Your task to perform on an android device: turn off picture-in-picture Image 0: 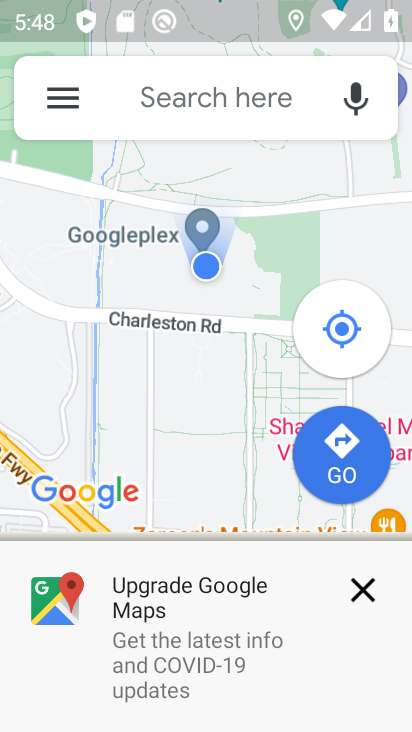
Step 0: click (179, 98)
Your task to perform on an android device: turn off picture-in-picture Image 1: 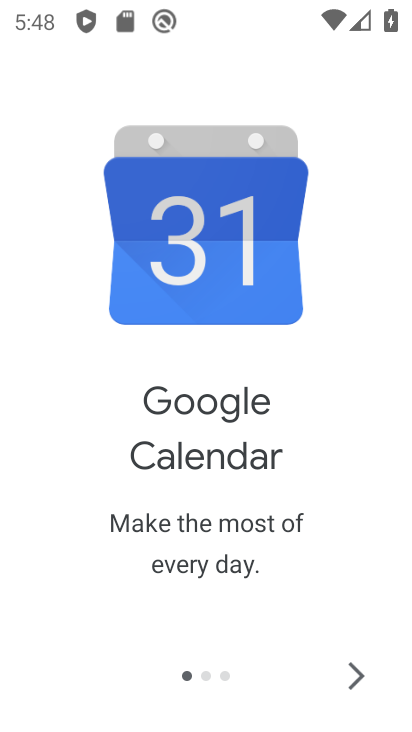
Step 1: click (214, 221)
Your task to perform on an android device: turn off picture-in-picture Image 2: 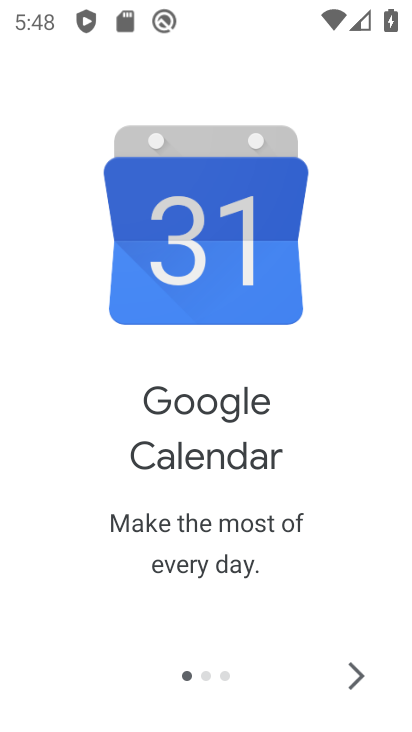
Step 2: press home button
Your task to perform on an android device: turn off picture-in-picture Image 3: 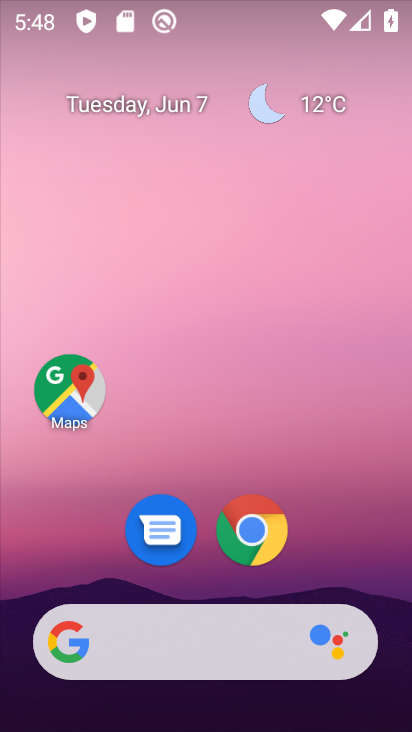
Step 3: drag from (202, 577) to (159, 156)
Your task to perform on an android device: turn off picture-in-picture Image 4: 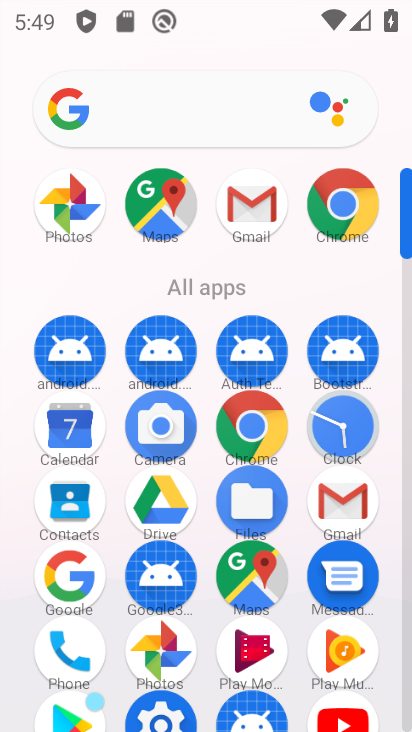
Step 4: drag from (291, 680) to (291, 393)
Your task to perform on an android device: turn off picture-in-picture Image 5: 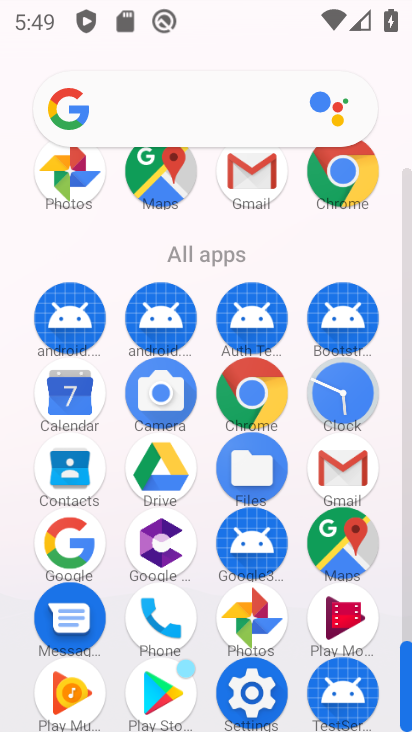
Step 5: click (255, 697)
Your task to perform on an android device: turn off picture-in-picture Image 6: 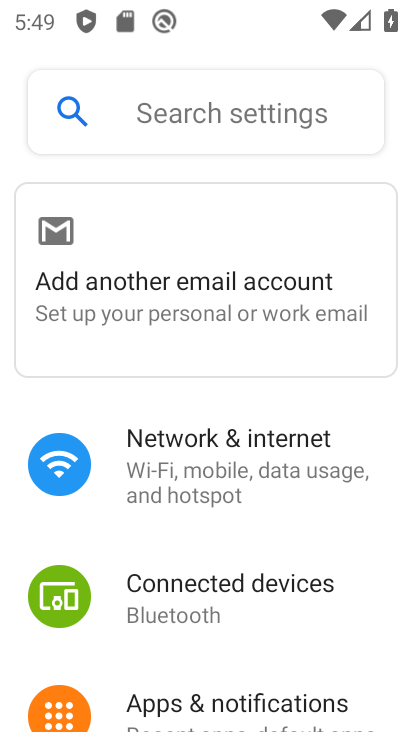
Step 6: click (185, 706)
Your task to perform on an android device: turn off picture-in-picture Image 7: 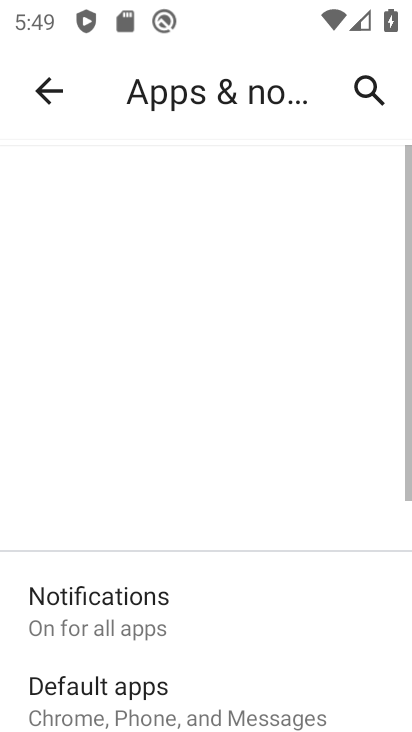
Step 7: drag from (207, 655) to (243, 177)
Your task to perform on an android device: turn off picture-in-picture Image 8: 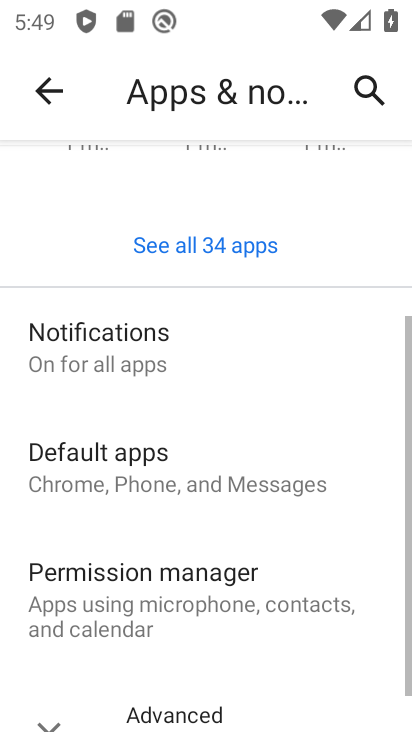
Step 8: drag from (186, 669) to (186, 361)
Your task to perform on an android device: turn off picture-in-picture Image 9: 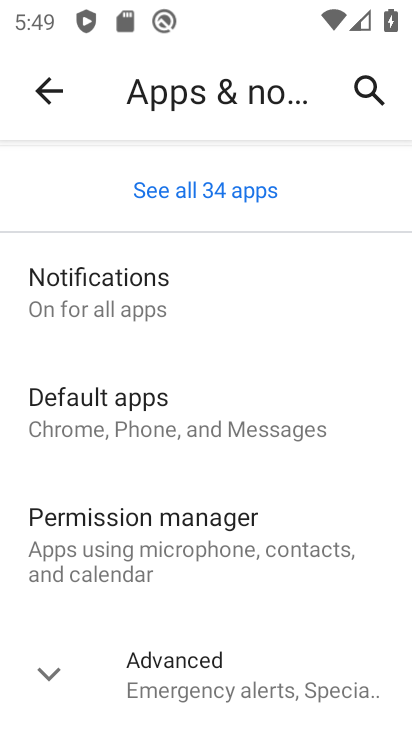
Step 9: click (165, 689)
Your task to perform on an android device: turn off picture-in-picture Image 10: 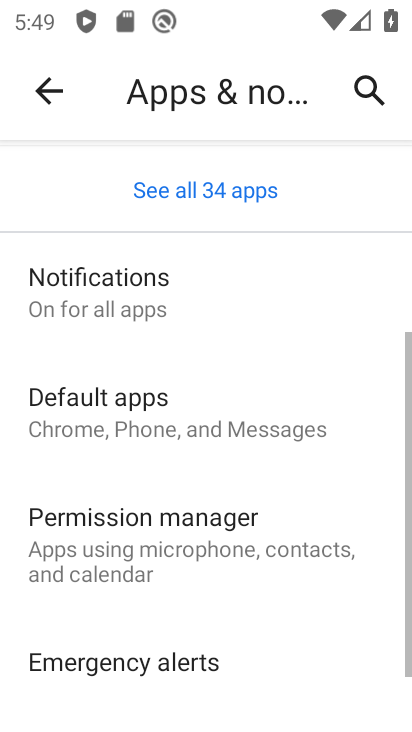
Step 10: drag from (166, 690) to (196, 342)
Your task to perform on an android device: turn off picture-in-picture Image 11: 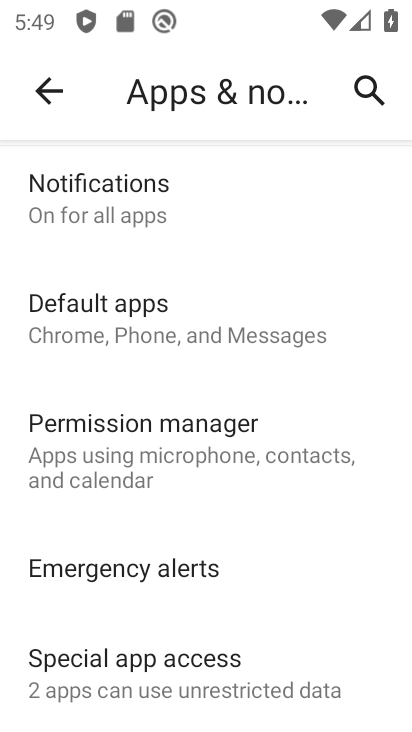
Step 11: drag from (129, 624) to (145, 410)
Your task to perform on an android device: turn off picture-in-picture Image 12: 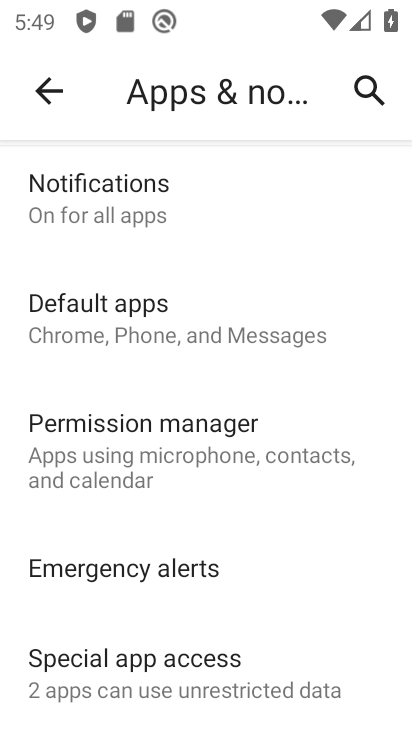
Step 12: click (105, 669)
Your task to perform on an android device: turn off picture-in-picture Image 13: 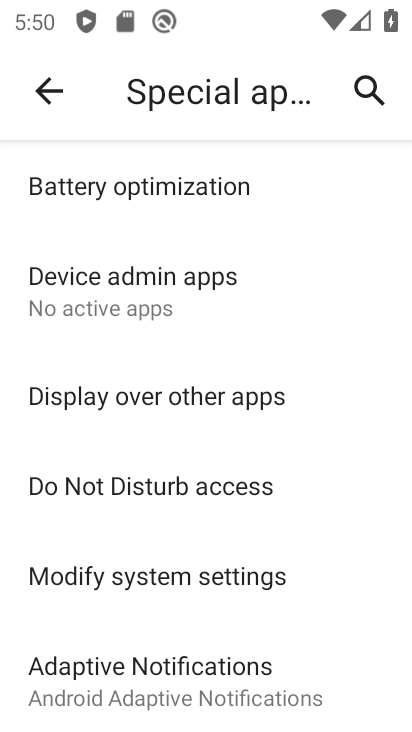
Step 13: drag from (176, 622) to (213, 282)
Your task to perform on an android device: turn off picture-in-picture Image 14: 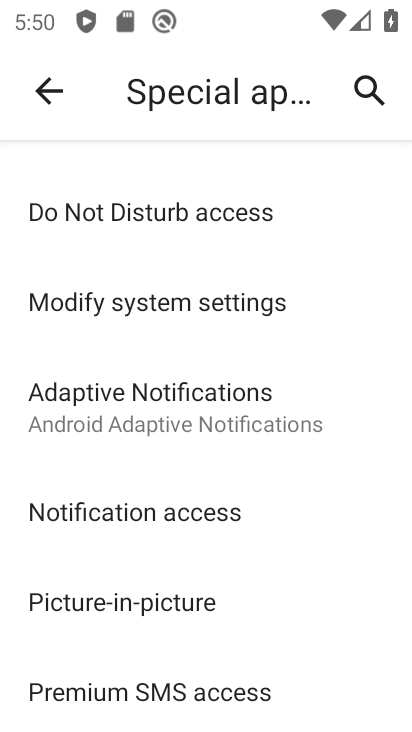
Step 14: click (172, 598)
Your task to perform on an android device: turn off picture-in-picture Image 15: 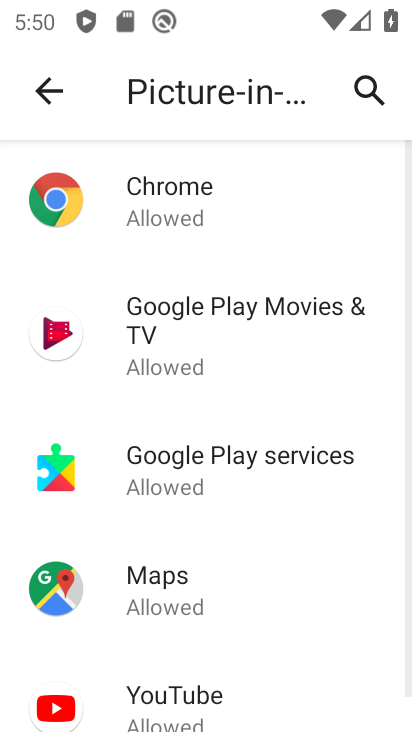
Step 15: click (197, 220)
Your task to perform on an android device: turn off picture-in-picture Image 16: 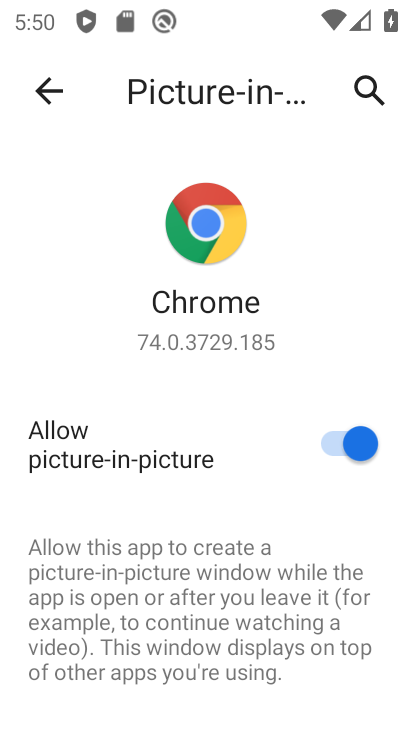
Step 16: click (334, 457)
Your task to perform on an android device: turn off picture-in-picture Image 17: 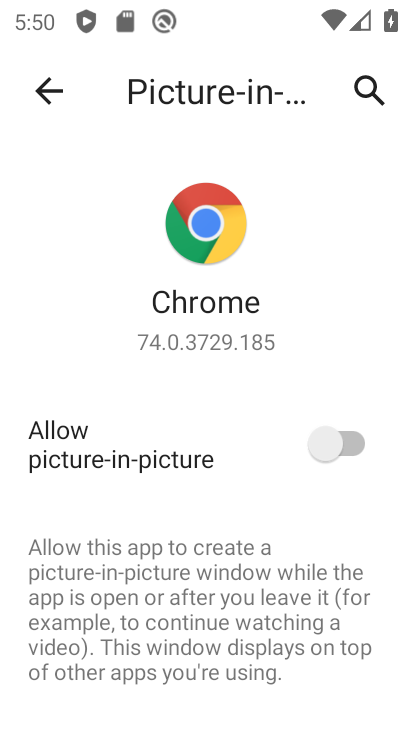
Step 17: task complete